Your task to perform on an android device: Add "energizer triple a" to the cart on amazon.com, then select checkout. Image 0: 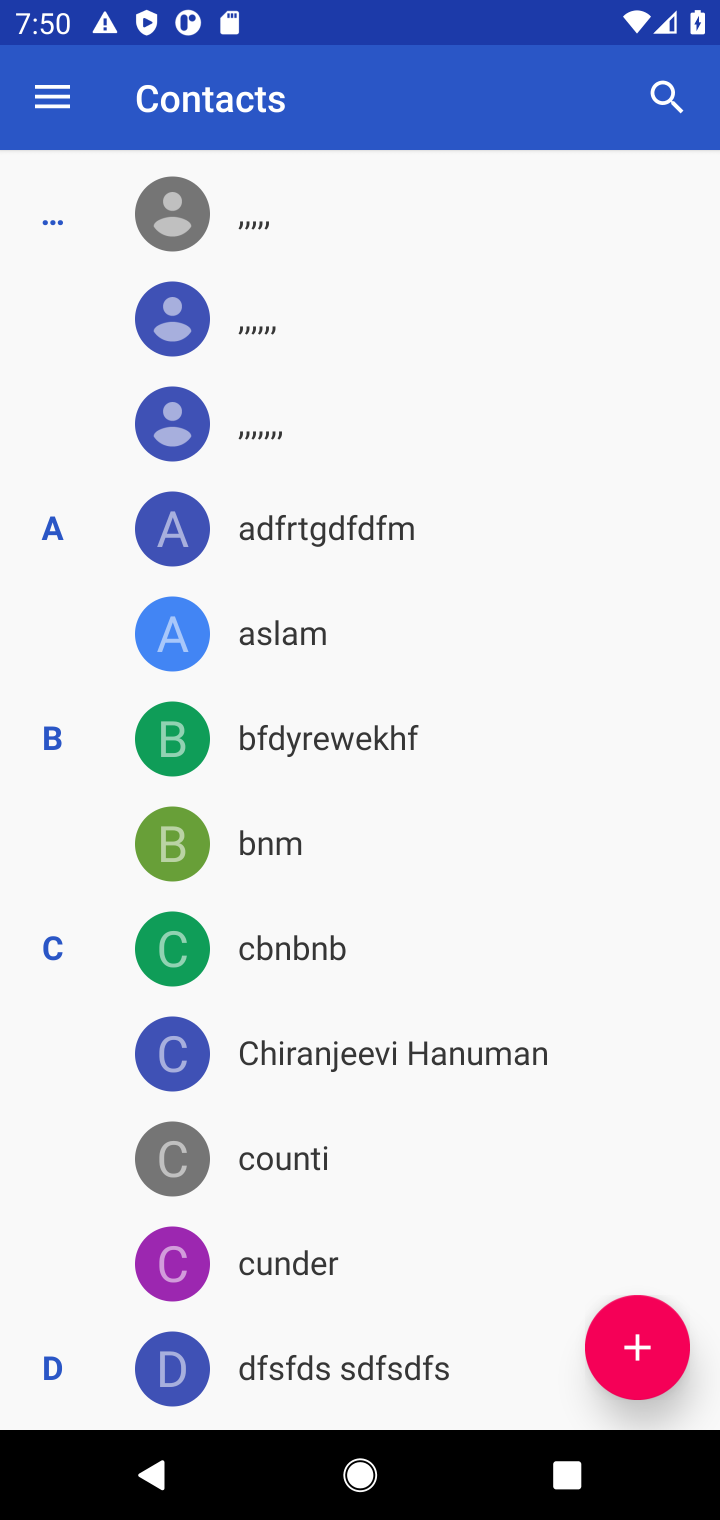
Step 0: press home button
Your task to perform on an android device: Add "energizer triple a" to the cart on amazon.com, then select checkout. Image 1: 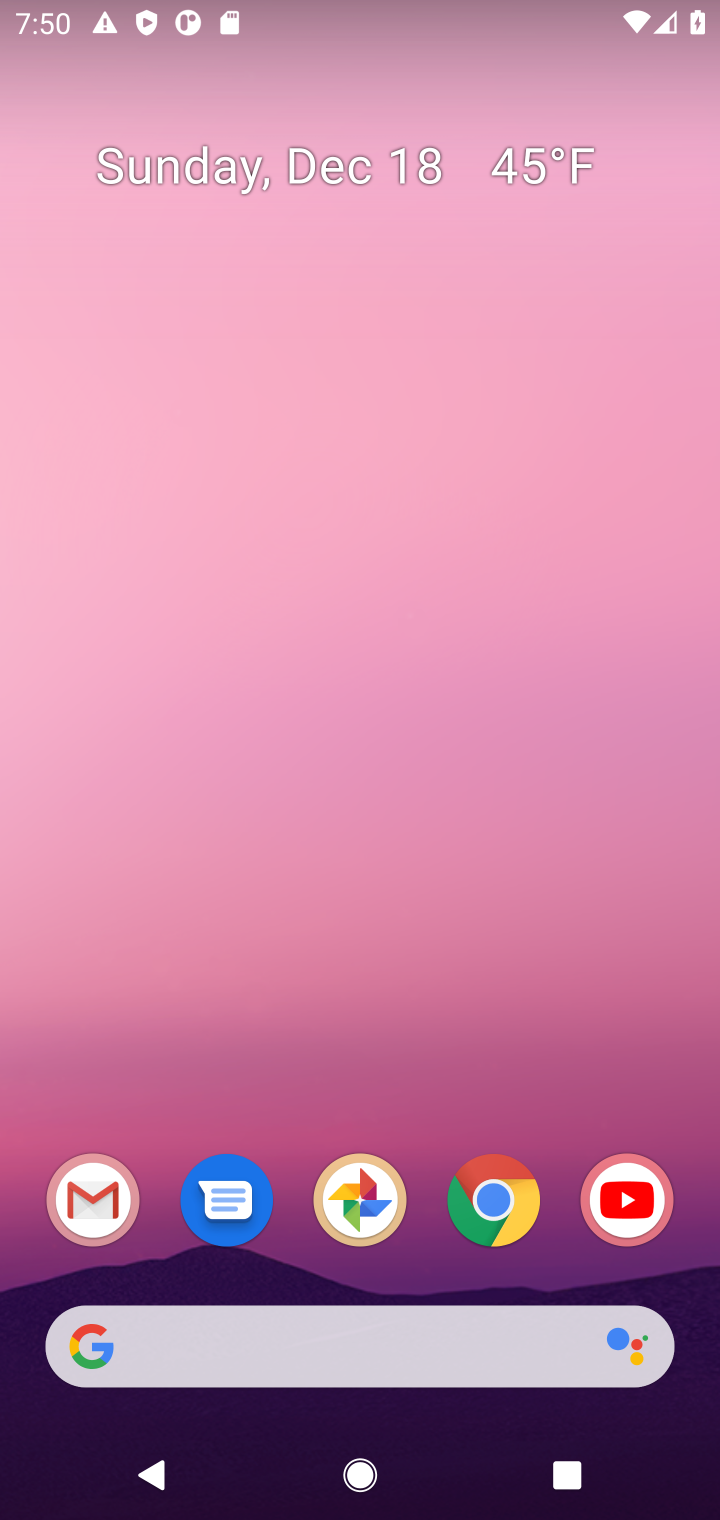
Step 1: click (490, 1209)
Your task to perform on an android device: Add "energizer triple a" to the cart on amazon.com, then select checkout. Image 2: 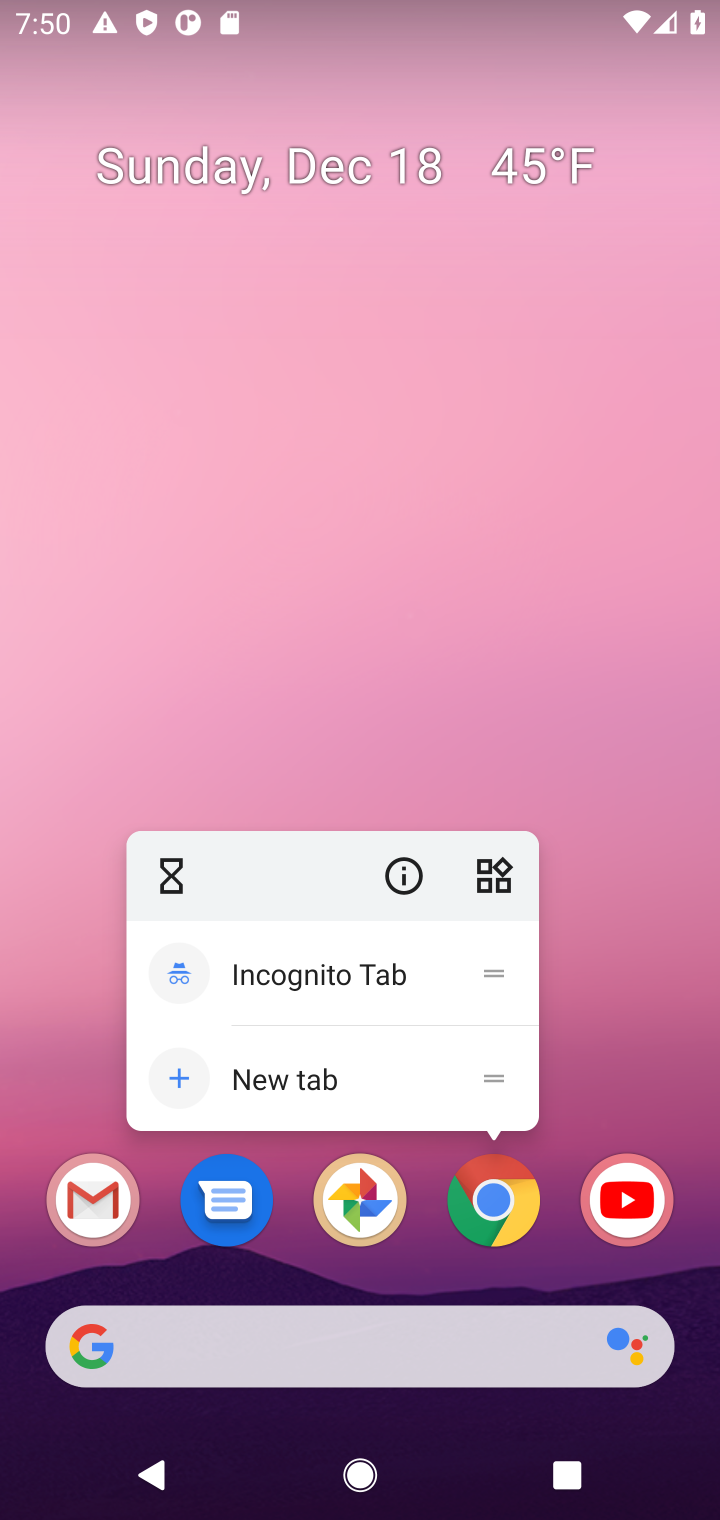
Step 2: click (490, 1209)
Your task to perform on an android device: Add "energizer triple a" to the cart on amazon.com, then select checkout. Image 3: 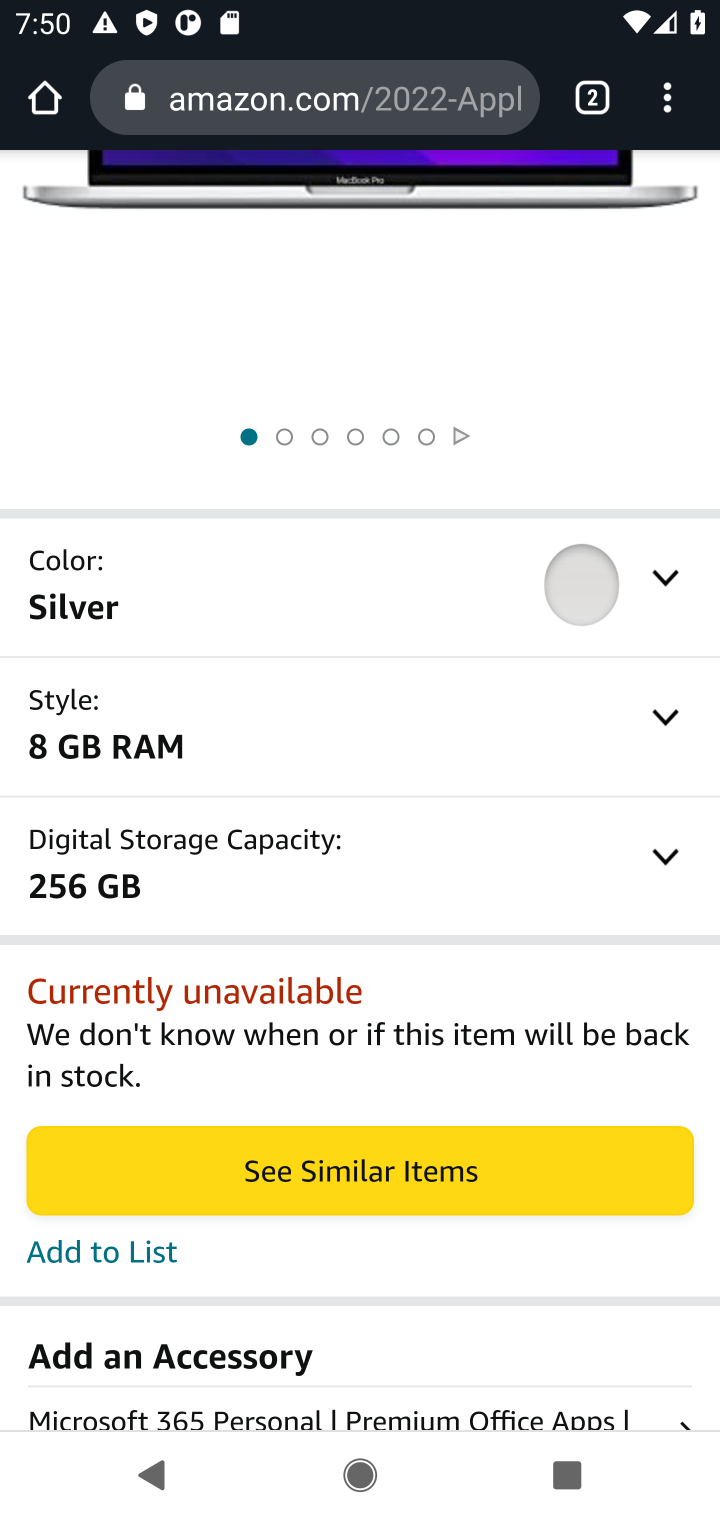
Step 3: drag from (523, 449) to (445, 1183)
Your task to perform on an android device: Add "energizer triple a" to the cart on amazon.com, then select checkout. Image 4: 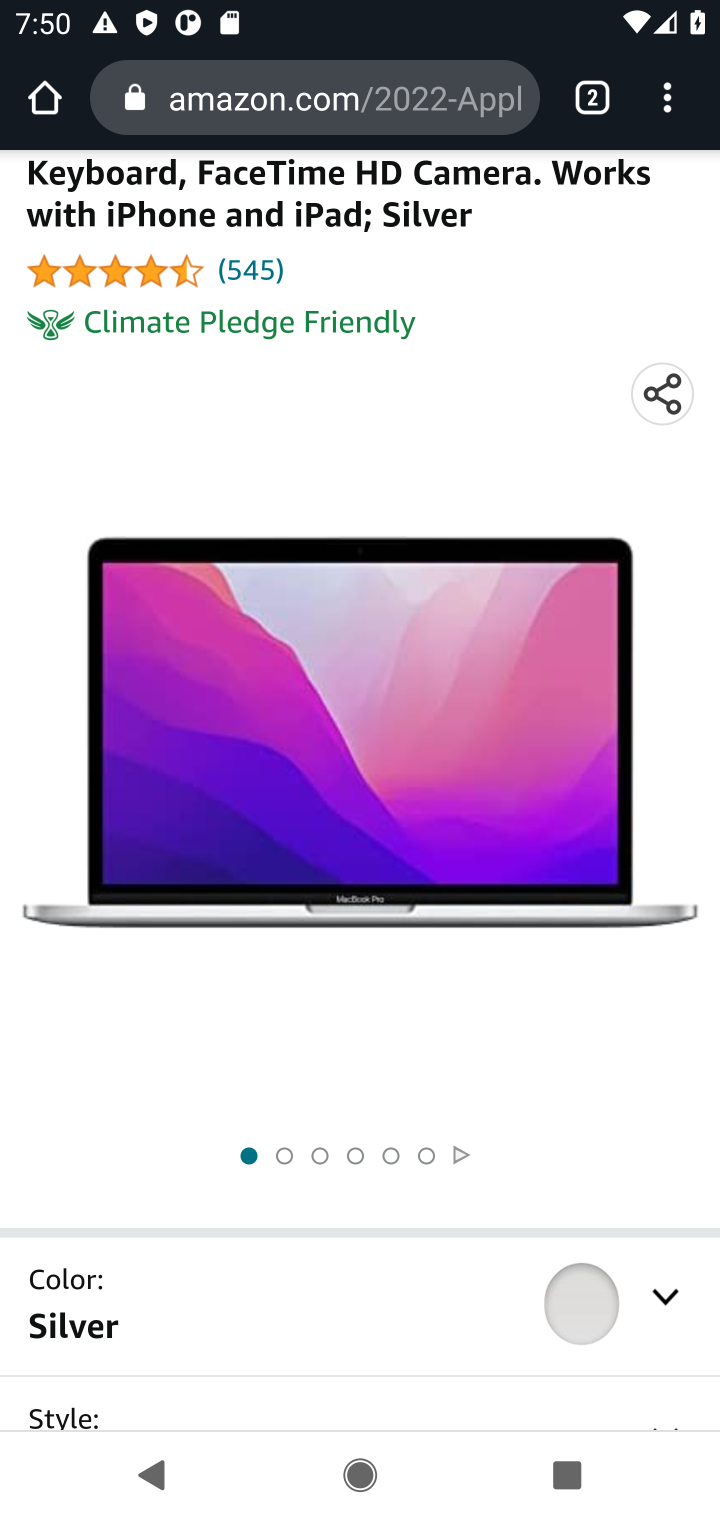
Step 4: drag from (396, 601) to (401, 969)
Your task to perform on an android device: Add "energizer triple a" to the cart on amazon.com, then select checkout. Image 5: 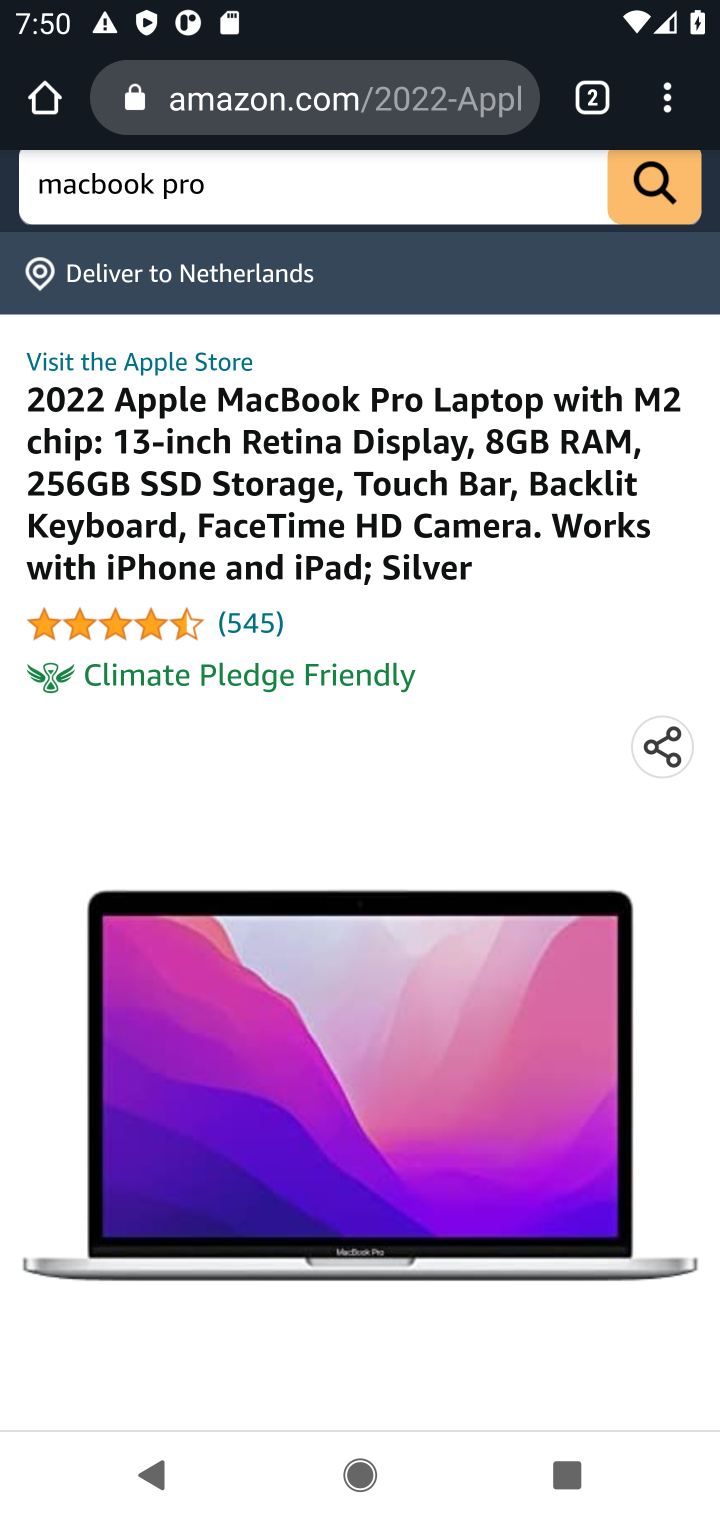
Step 5: click (238, 192)
Your task to perform on an android device: Add "energizer triple a" to the cart on amazon.com, then select checkout. Image 6: 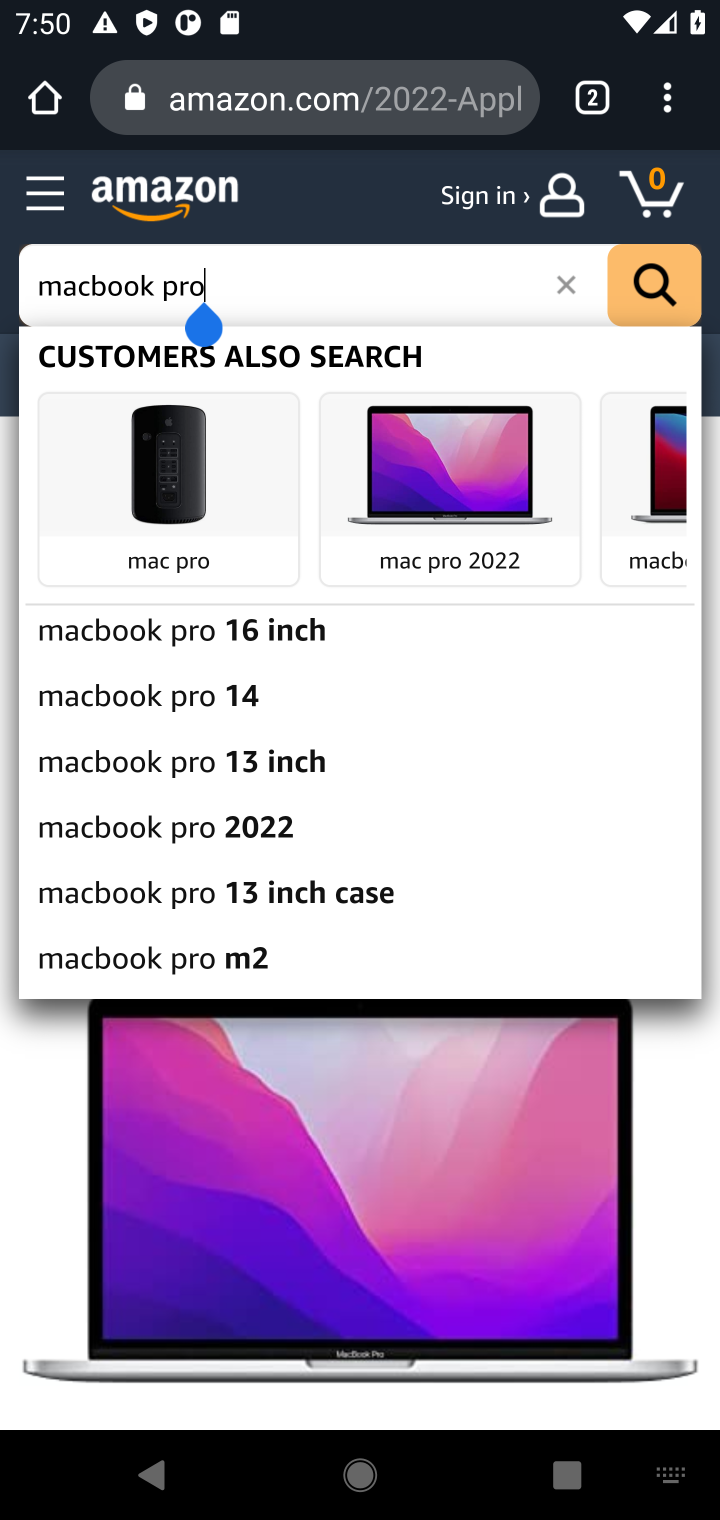
Step 6: click (568, 283)
Your task to perform on an android device: Add "energizer triple a" to the cart on amazon.com, then select checkout. Image 7: 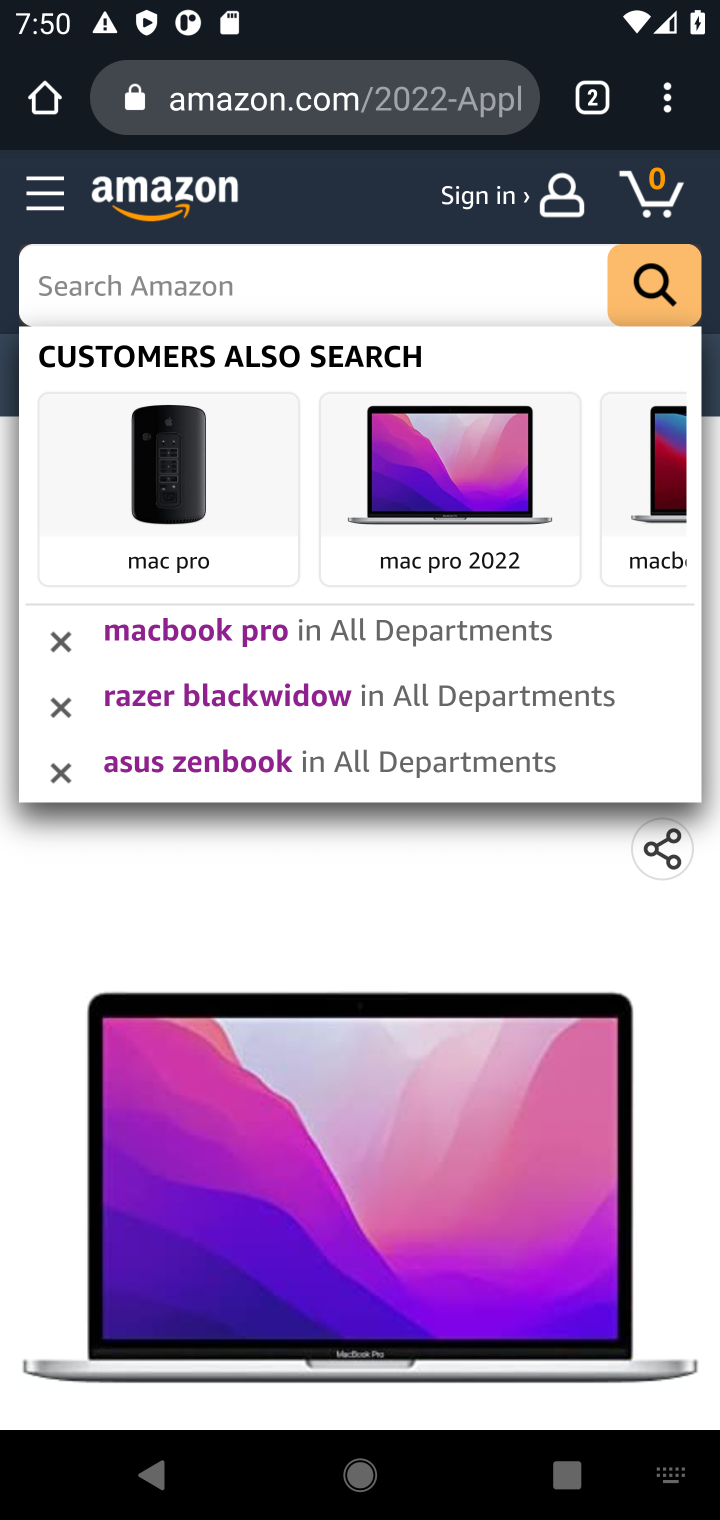
Step 7: type "energizer triple a"
Your task to perform on an android device: Add "energizer triple a" to the cart on amazon.com, then select checkout. Image 8: 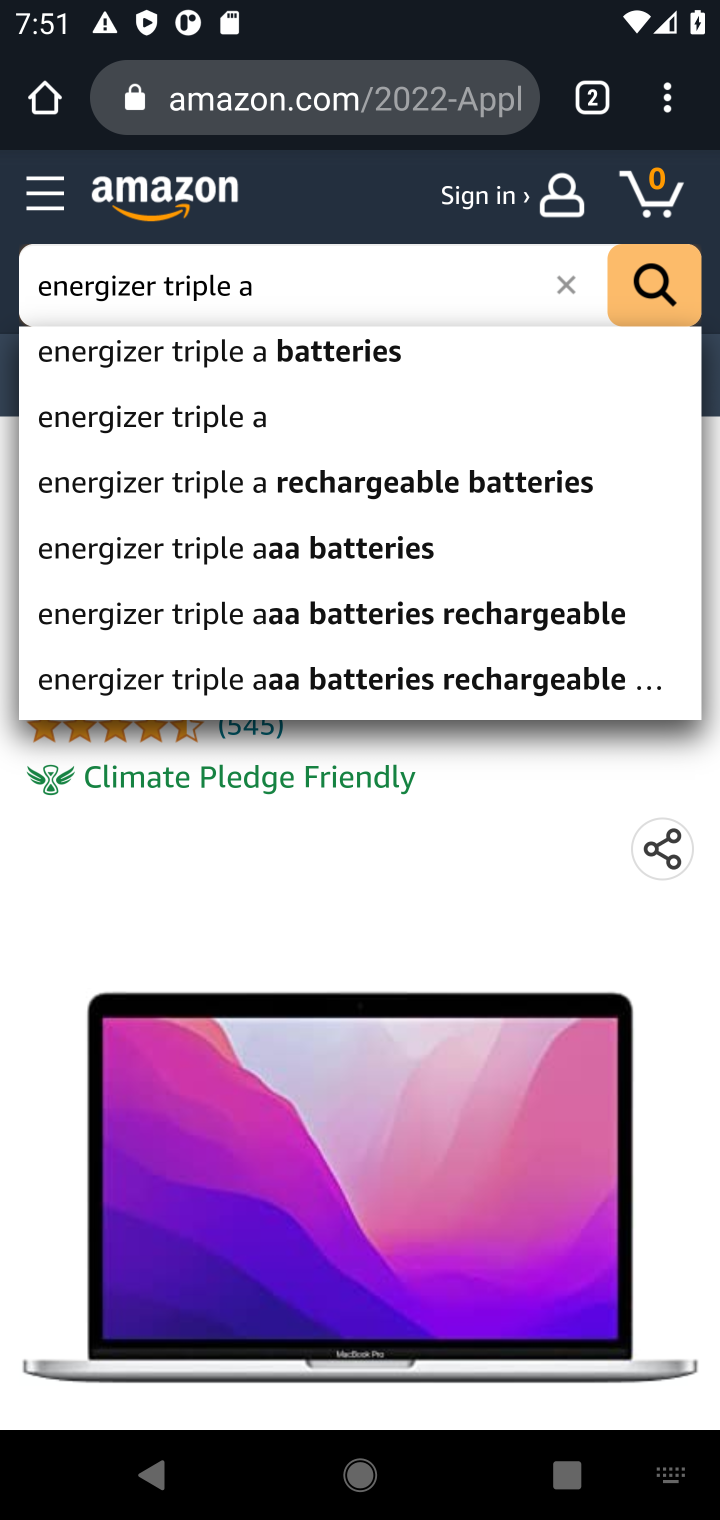
Step 8: click (183, 354)
Your task to perform on an android device: Add "energizer triple a" to the cart on amazon.com, then select checkout. Image 9: 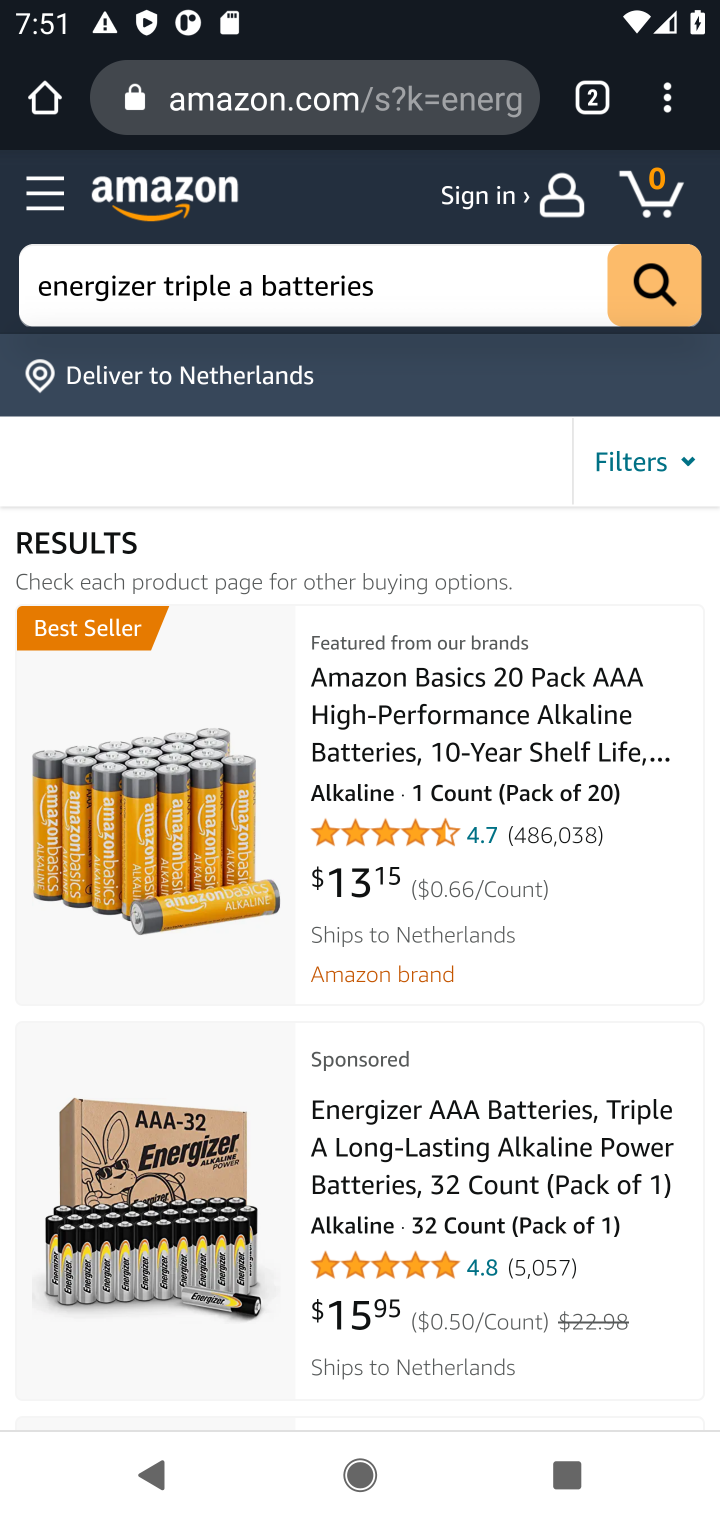
Step 9: drag from (214, 1111) to (214, 743)
Your task to perform on an android device: Add "energizer triple a" to the cart on amazon.com, then select checkout. Image 10: 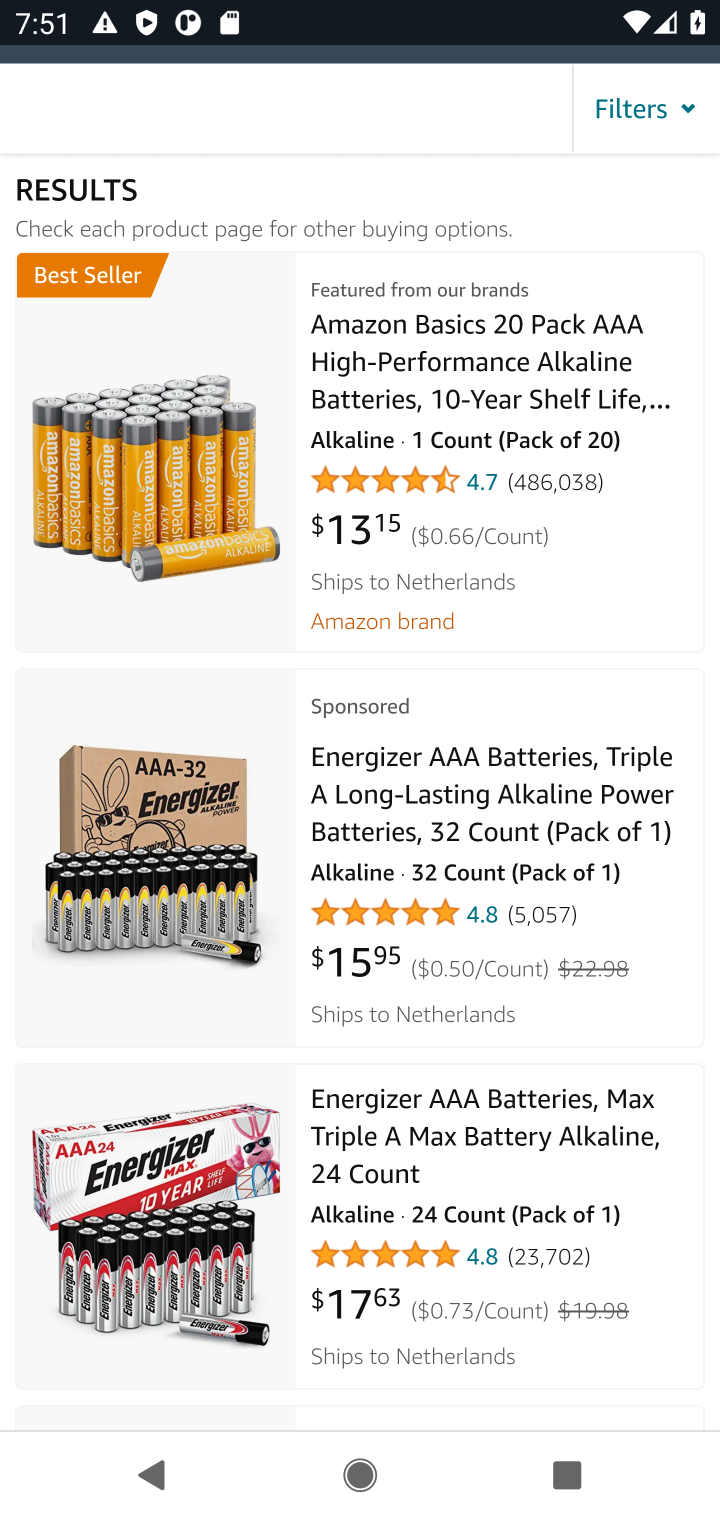
Step 10: click (438, 837)
Your task to perform on an android device: Add "energizer triple a" to the cart on amazon.com, then select checkout. Image 11: 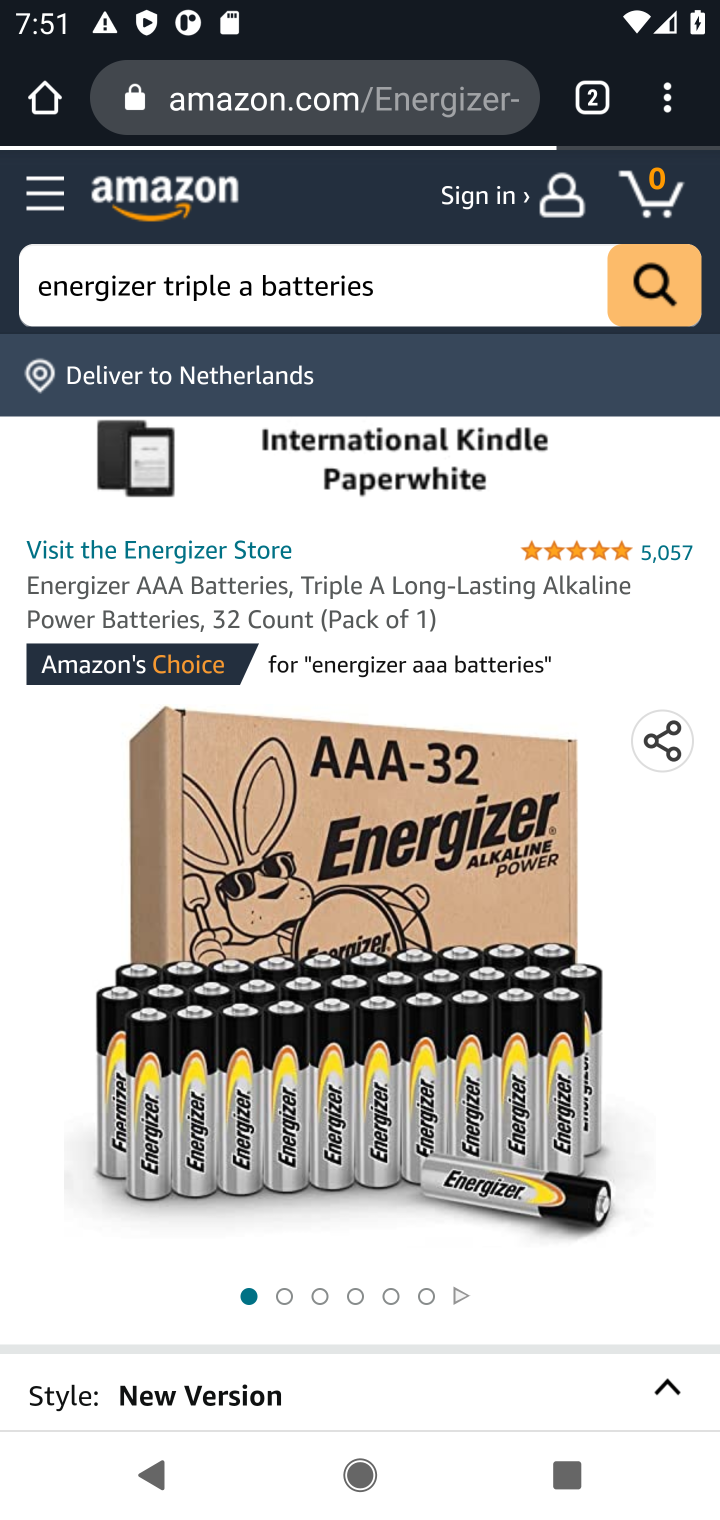
Step 11: drag from (316, 1020) to (256, 562)
Your task to perform on an android device: Add "energizer triple a" to the cart on amazon.com, then select checkout. Image 12: 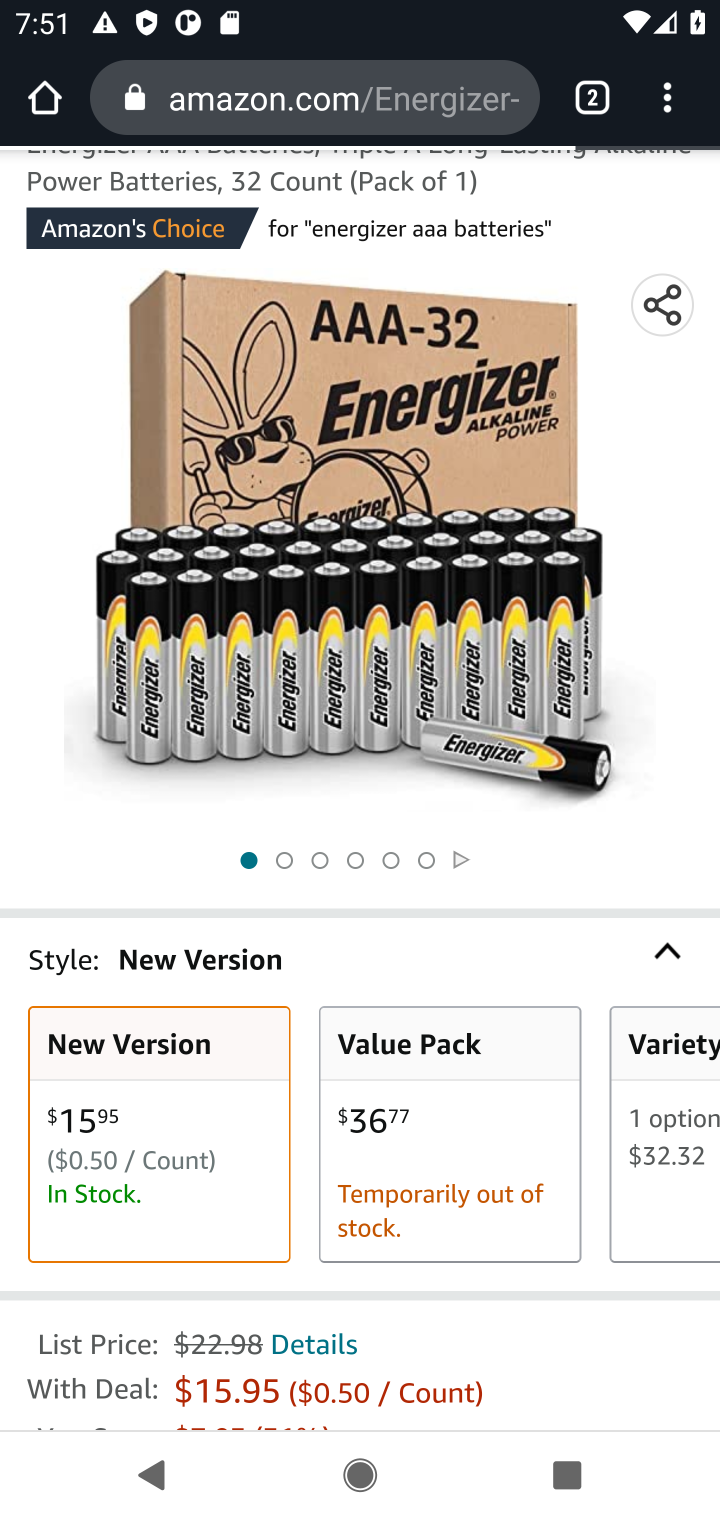
Step 12: drag from (291, 1262) to (315, 517)
Your task to perform on an android device: Add "energizer triple a" to the cart on amazon.com, then select checkout. Image 13: 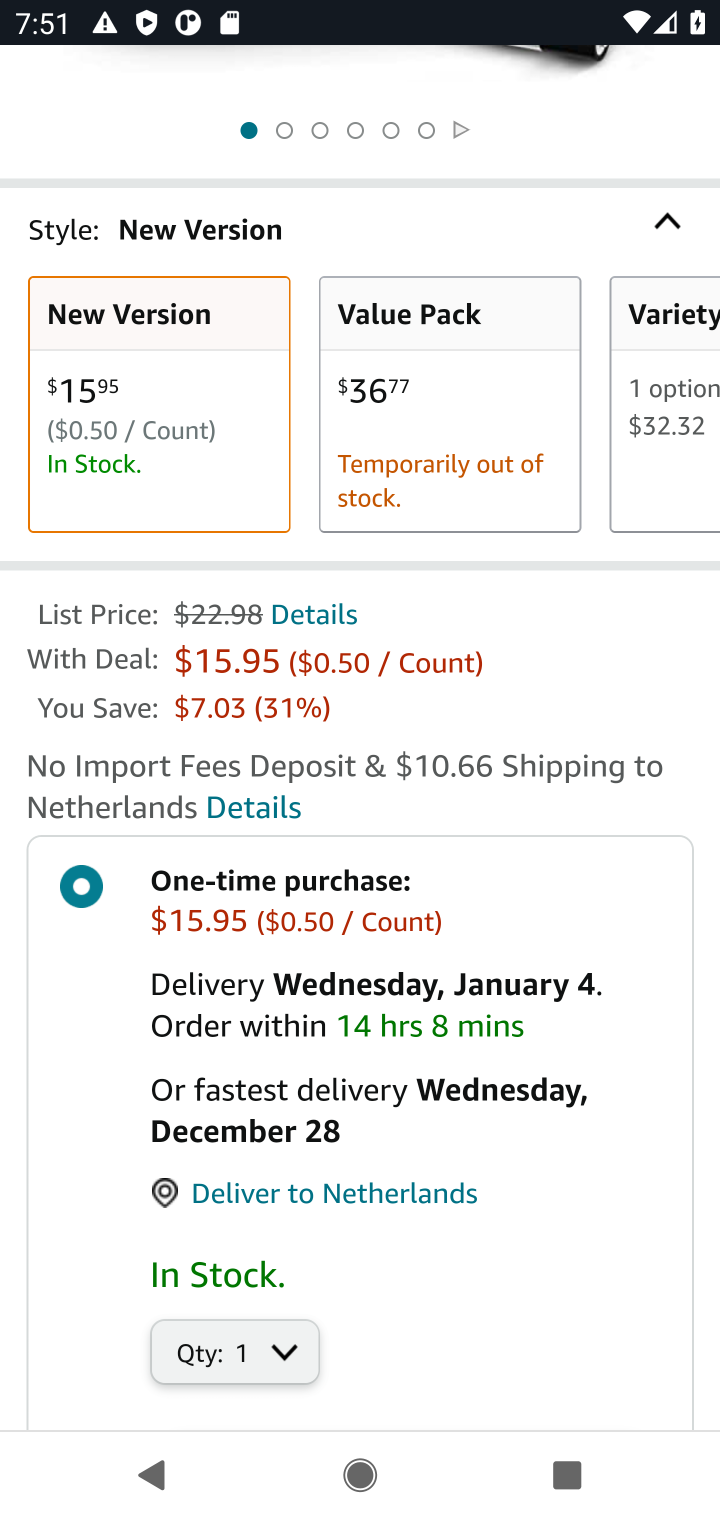
Step 13: drag from (352, 1176) to (319, 501)
Your task to perform on an android device: Add "energizer triple a" to the cart on amazon.com, then select checkout. Image 14: 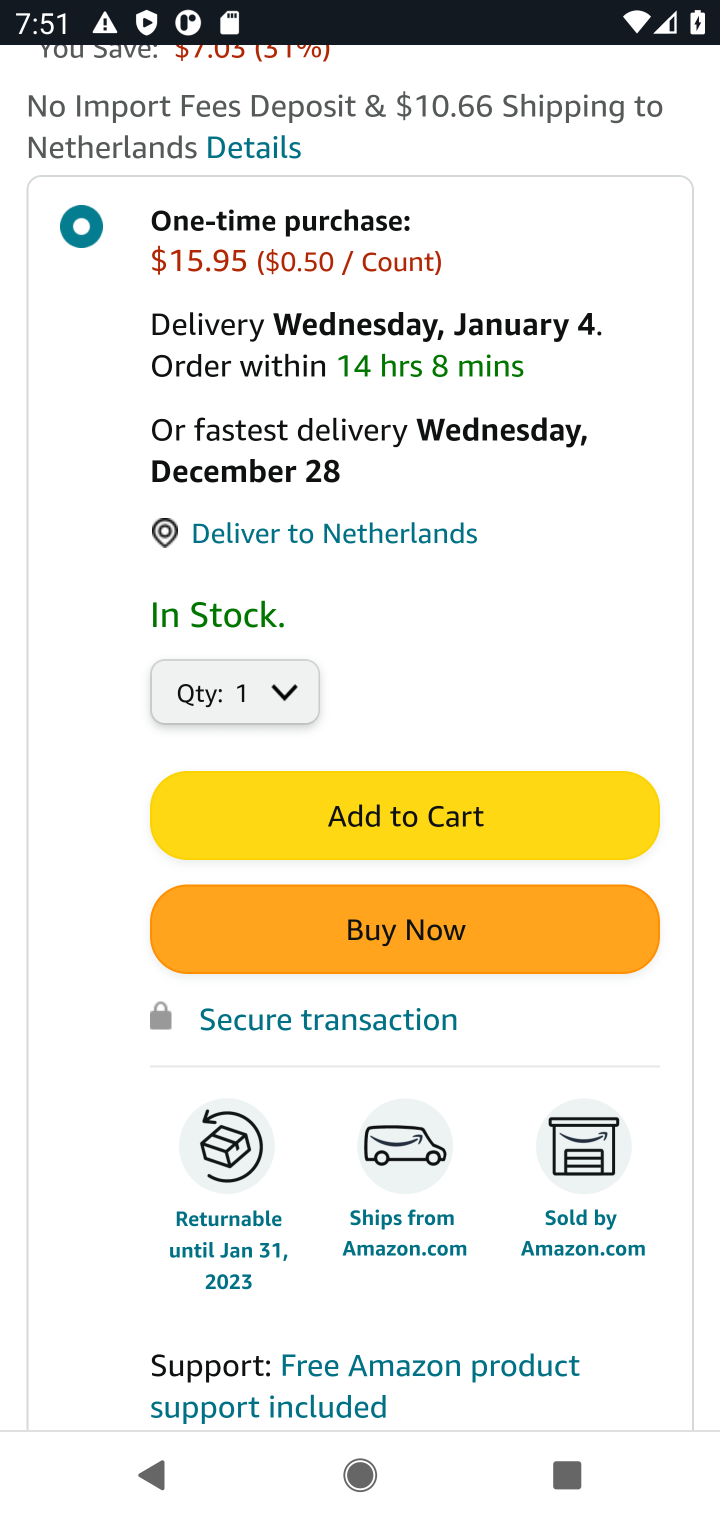
Step 14: click (343, 808)
Your task to perform on an android device: Add "energizer triple a" to the cart on amazon.com, then select checkout. Image 15: 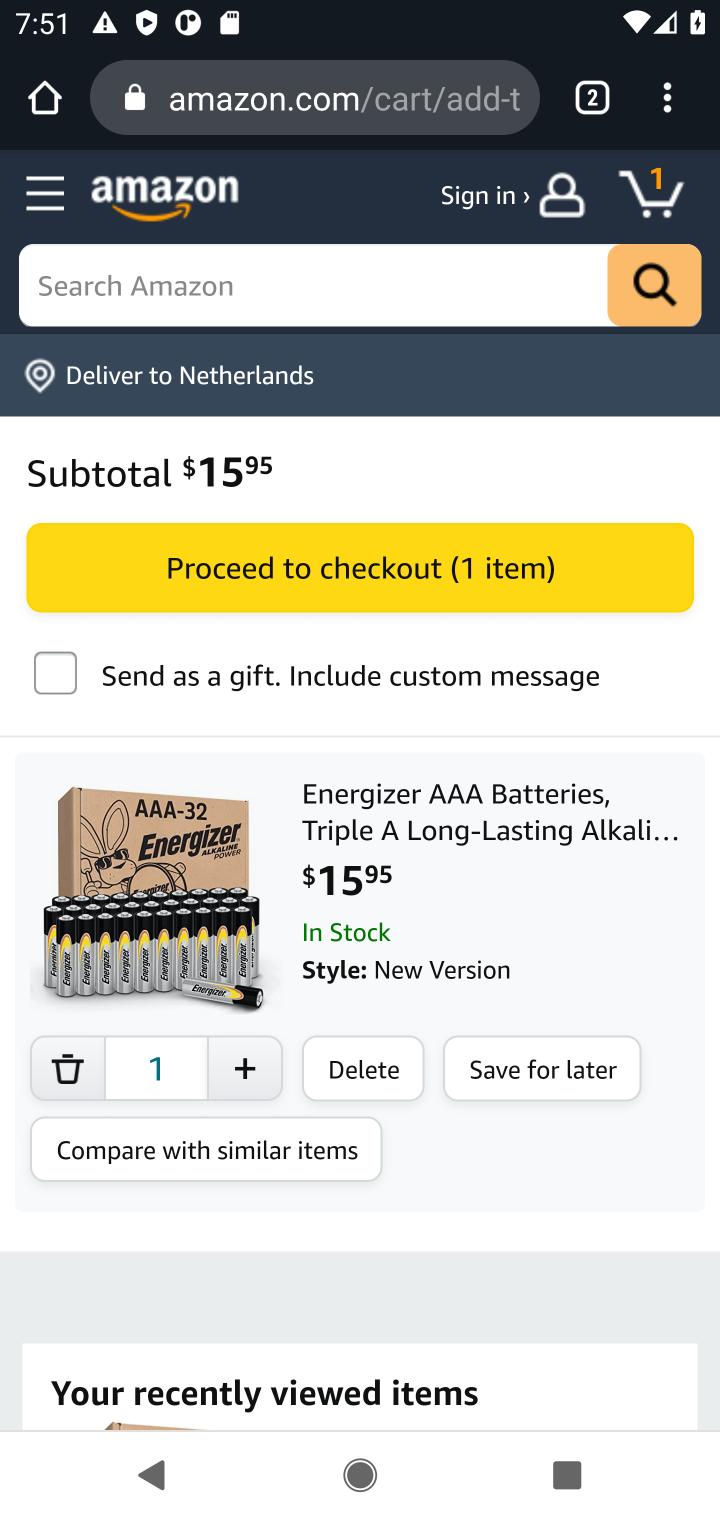
Step 15: click (307, 574)
Your task to perform on an android device: Add "energizer triple a" to the cart on amazon.com, then select checkout. Image 16: 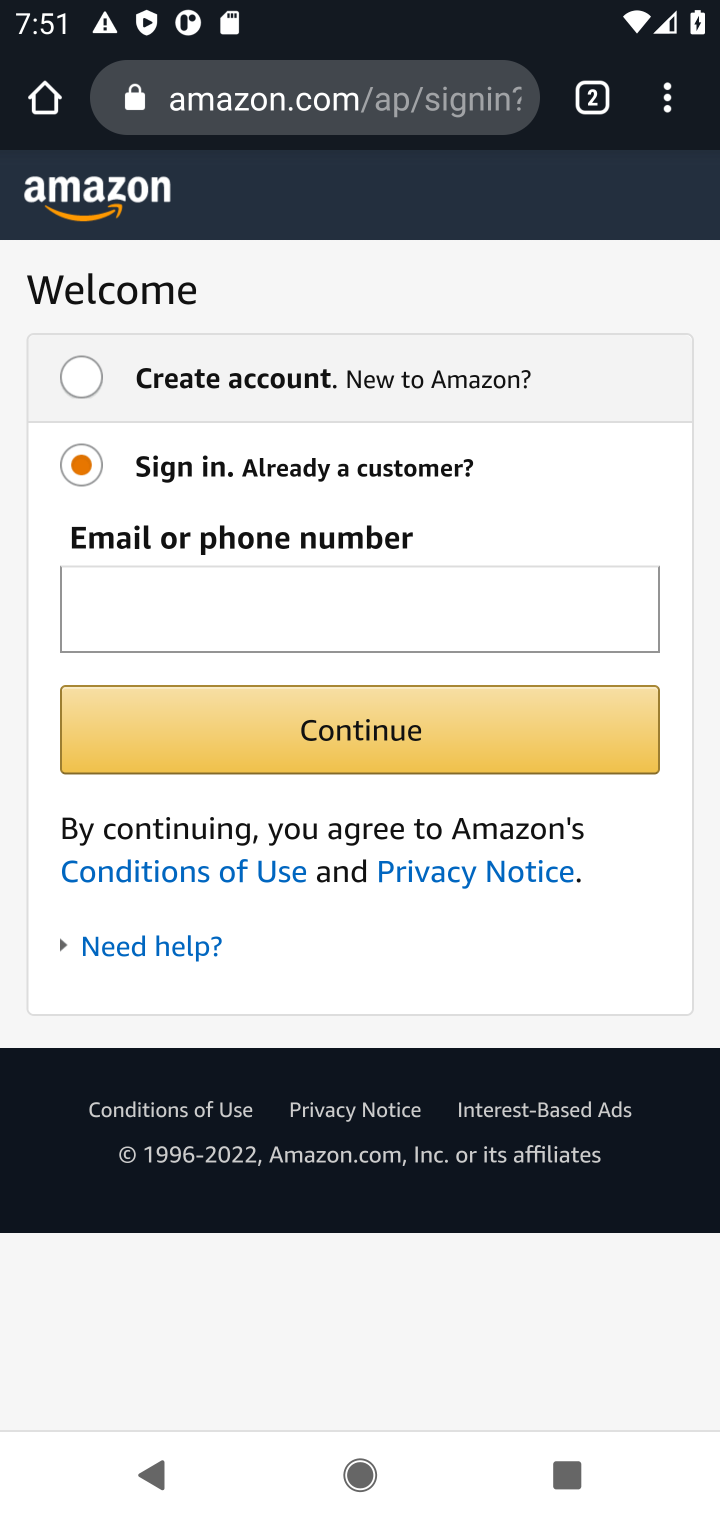
Step 16: task complete